Your task to perform on an android device: Open internet settings Image 0: 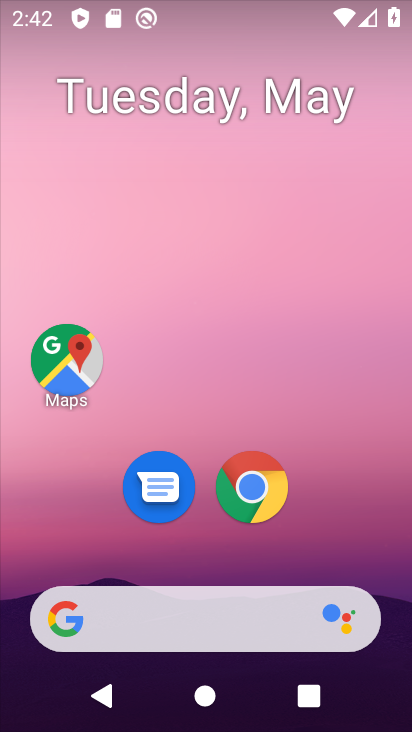
Step 0: drag from (118, 574) to (325, 66)
Your task to perform on an android device: Open internet settings Image 1: 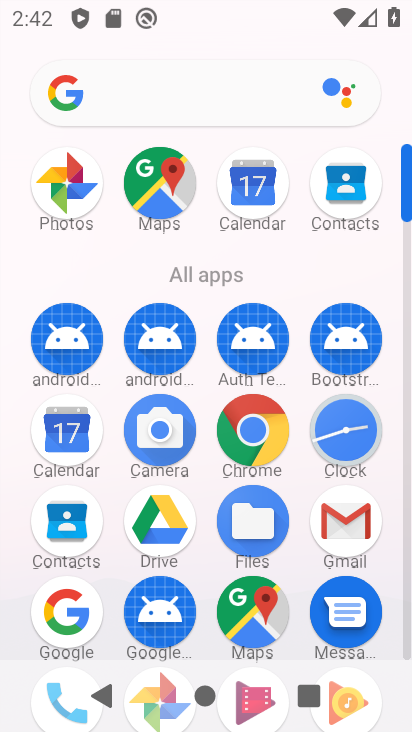
Step 1: drag from (211, 600) to (292, 310)
Your task to perform on an android device: Open internet settings Image 2: 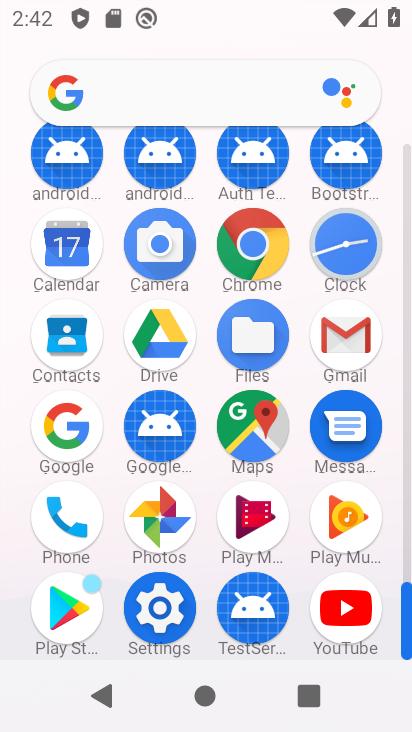
Step 2: click (174, 613)
Your task to perform on an android device: Open internet settings Image 3: 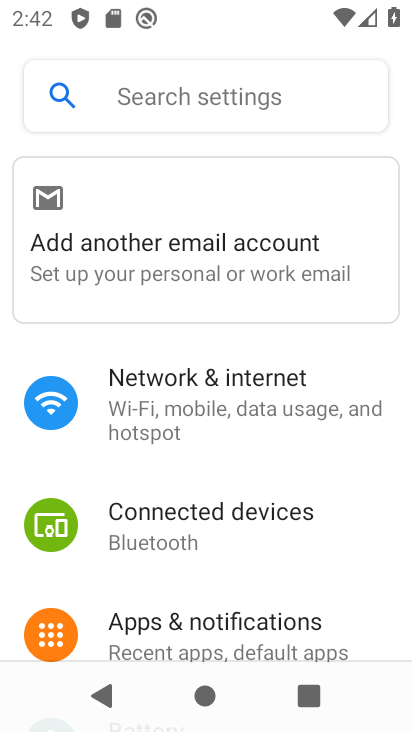
Step 3: click (228, 424)
Your task to perform on an android device: Open internet settings Image 4: 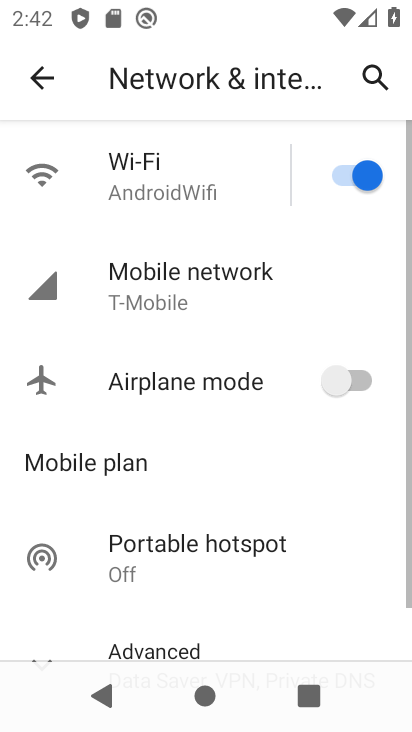
Step 4: click (240, 300)
Your task to perform on an android device: Open internet settings Image 5: 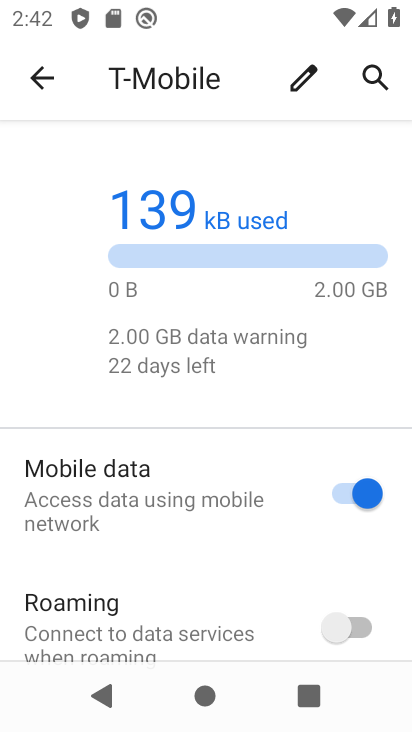
Step 5: task complete